Your task to perform on an android device: Open Maps and search for coffee Image 0: 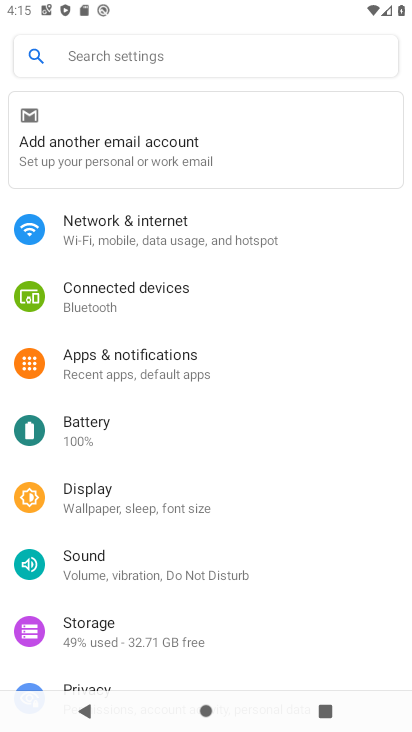
Step 0: press home button
Your task to perform on an android device: Open Maps and search for coffee Image 1: 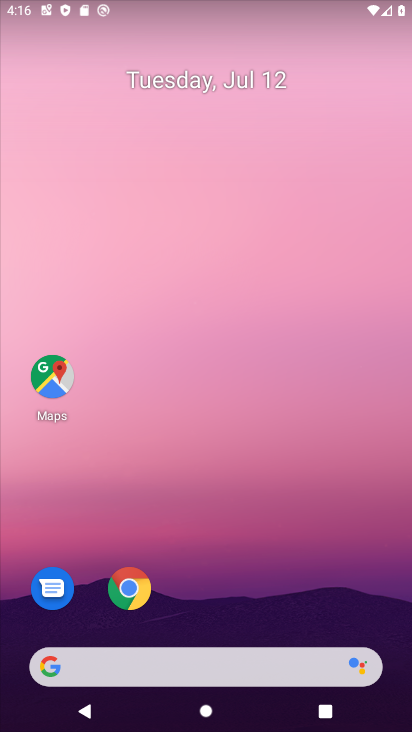
Step 1: click (35, 385)
Your task to perform on an android device: Open Maps and search for coffee Image 2: 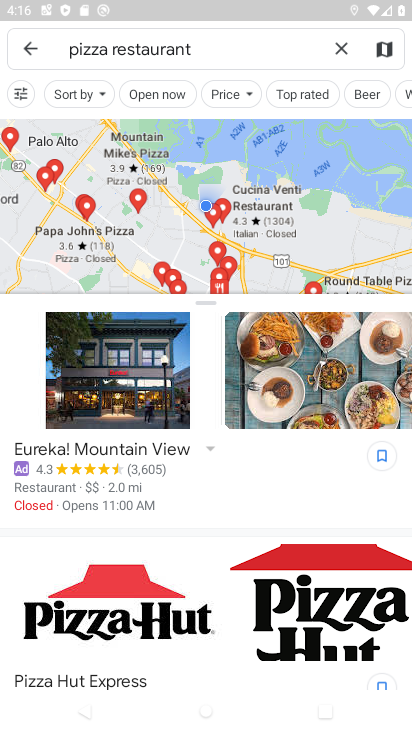
Step 2: click (338, 49)
Your task to perform on an android device: Open Maps and search for coffee Image 3: 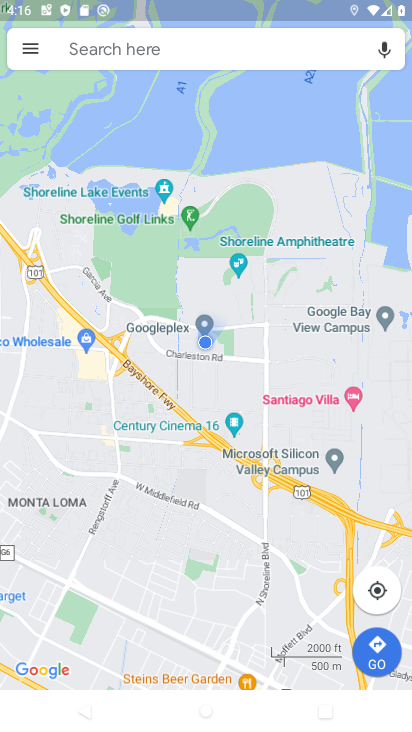
Step 3: click (195, 40)
Your task to perform on an android device: Open Maps and search for coffee Image 4: 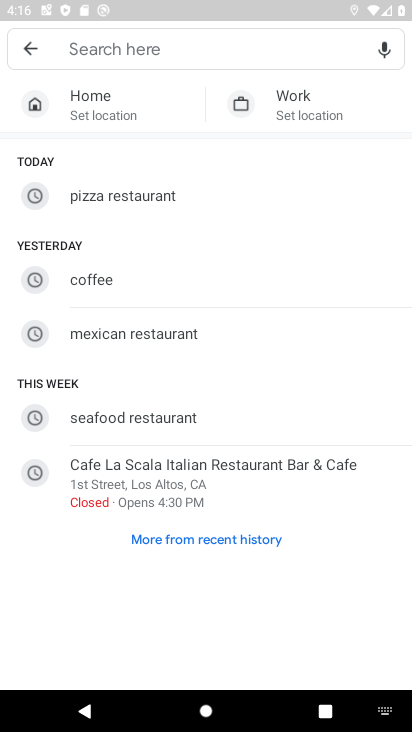
Step 4: click (110, 284)
Your task to perform on an android device: Open Maps and search for coffee Image 5: 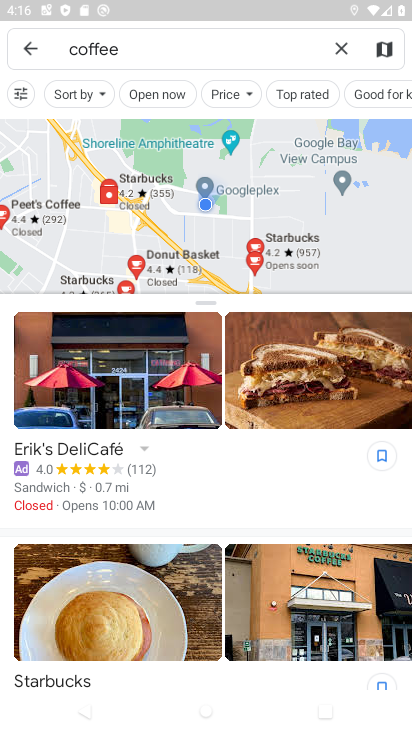
Step 5: task complete